Your task to perform on an android device: uninstall "PlayWell" Image 0: 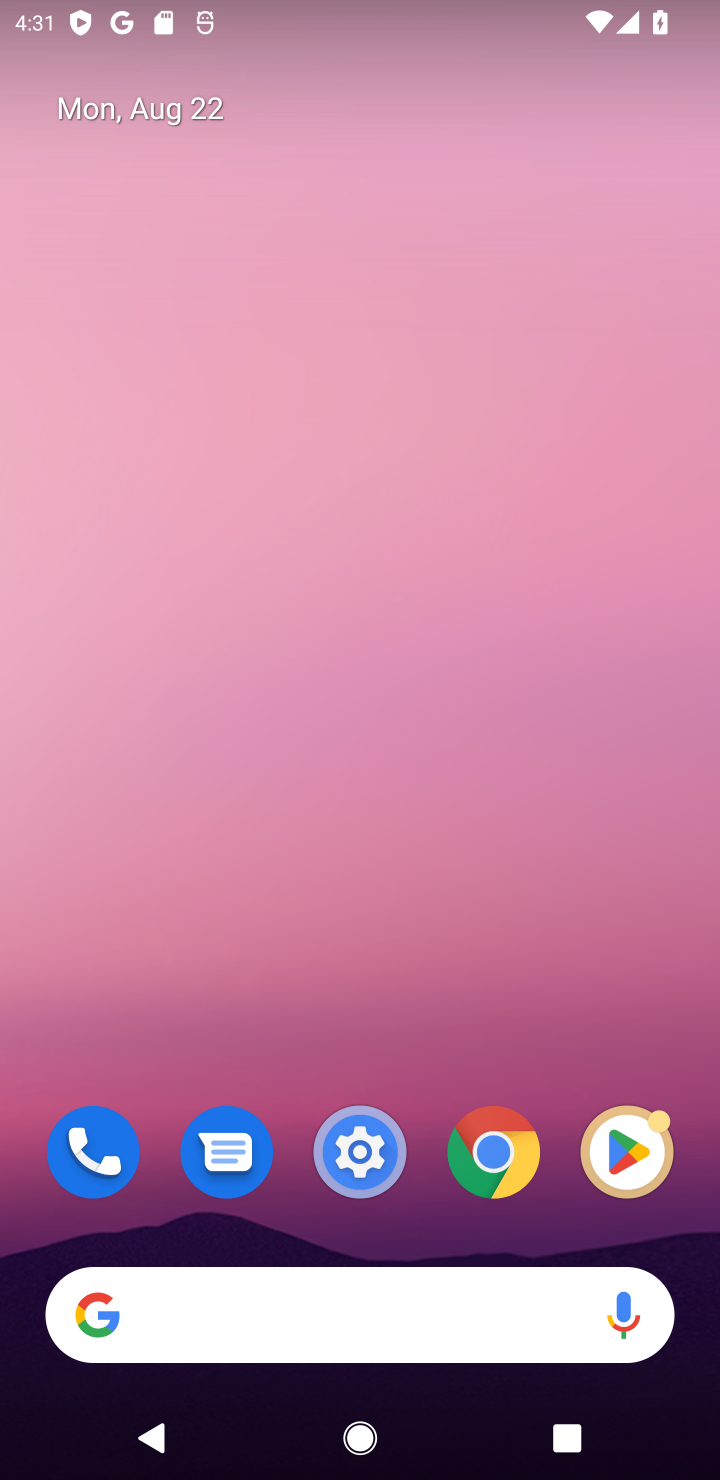
Step 0: click (610, 1177)
Your task to perform on an android device: uninstall "PlayWell" Image 1: 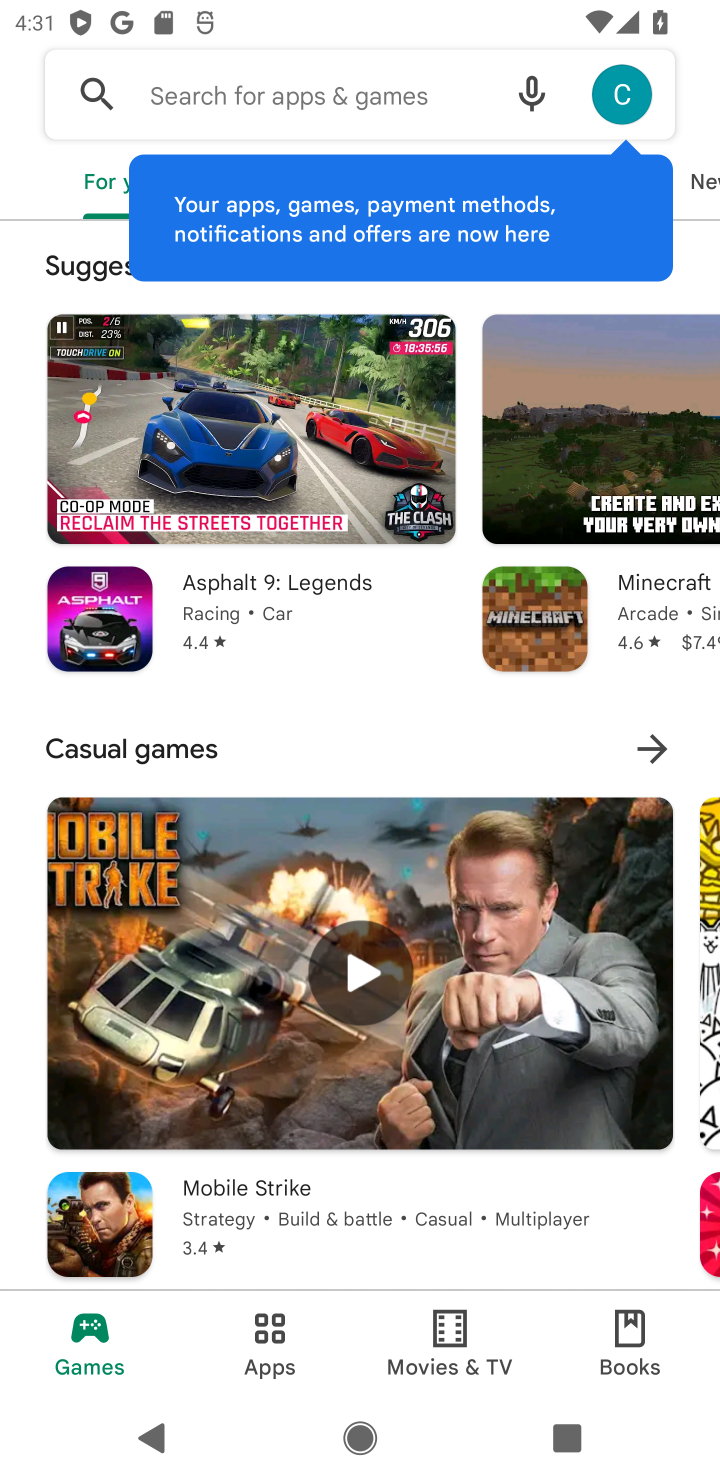
Step 1: click (242, 96)
Your task to perform on an android device: uninstall "PlayWell" Image 2: 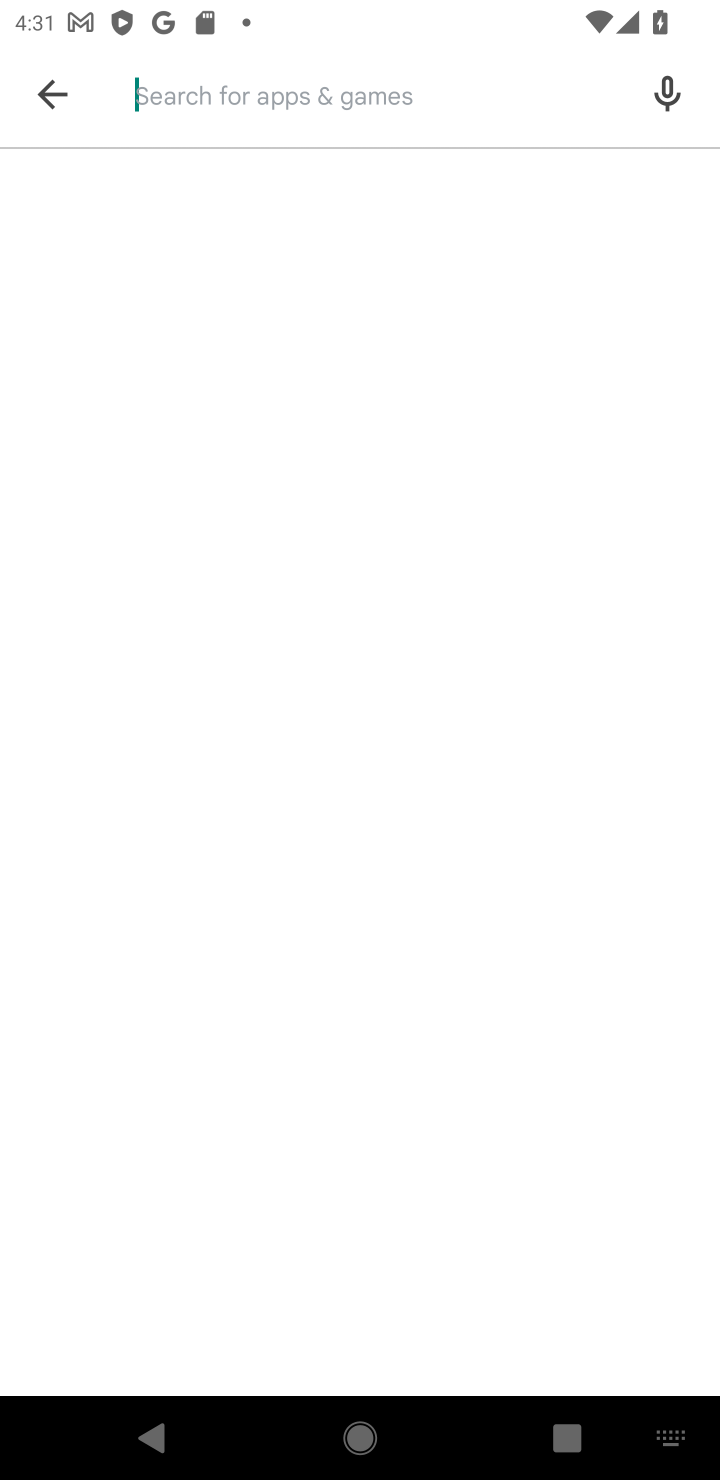
Step 2: type "PlayWell"
Your task to perform on an android device: uninstall "PlayWell" Image 3: 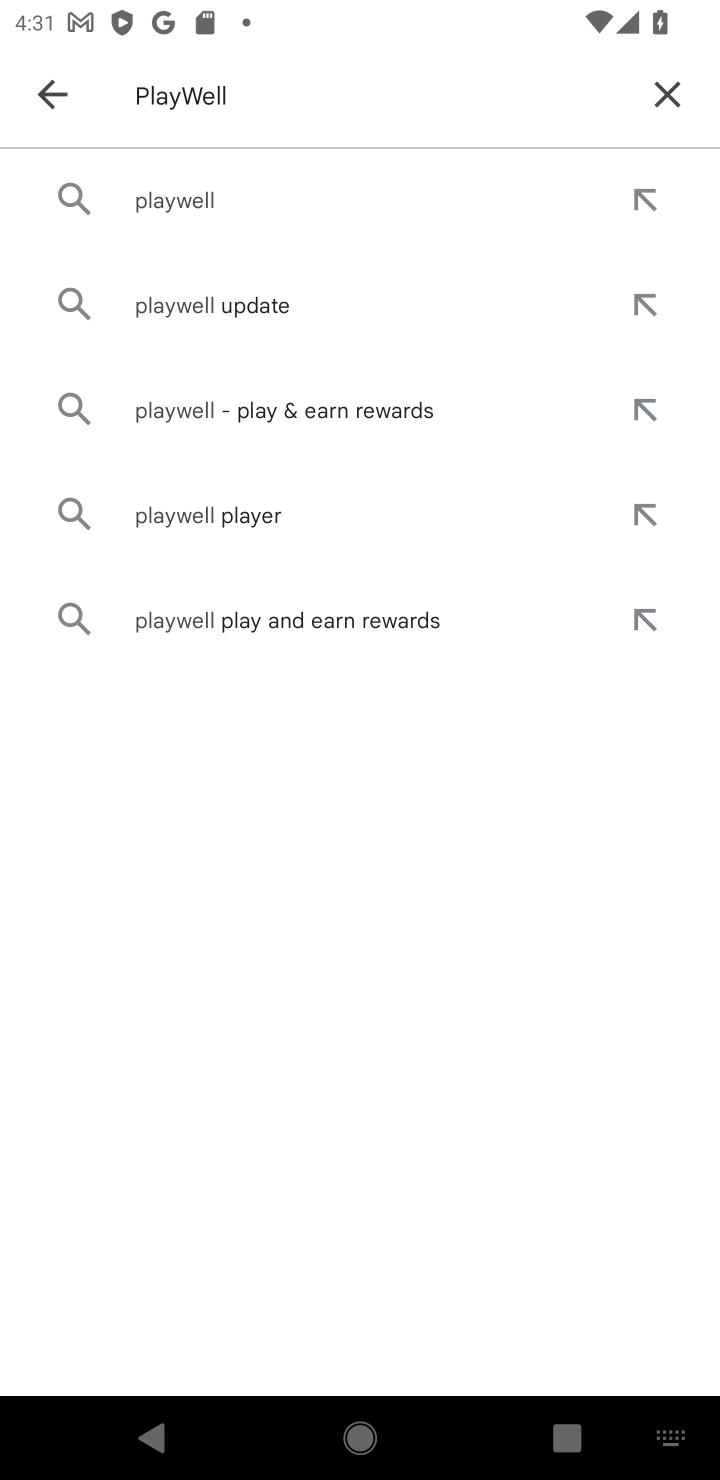
Step 3: click (144, 182)
Your task to perform on an android device: uninstall "PlayWell" Image 4: 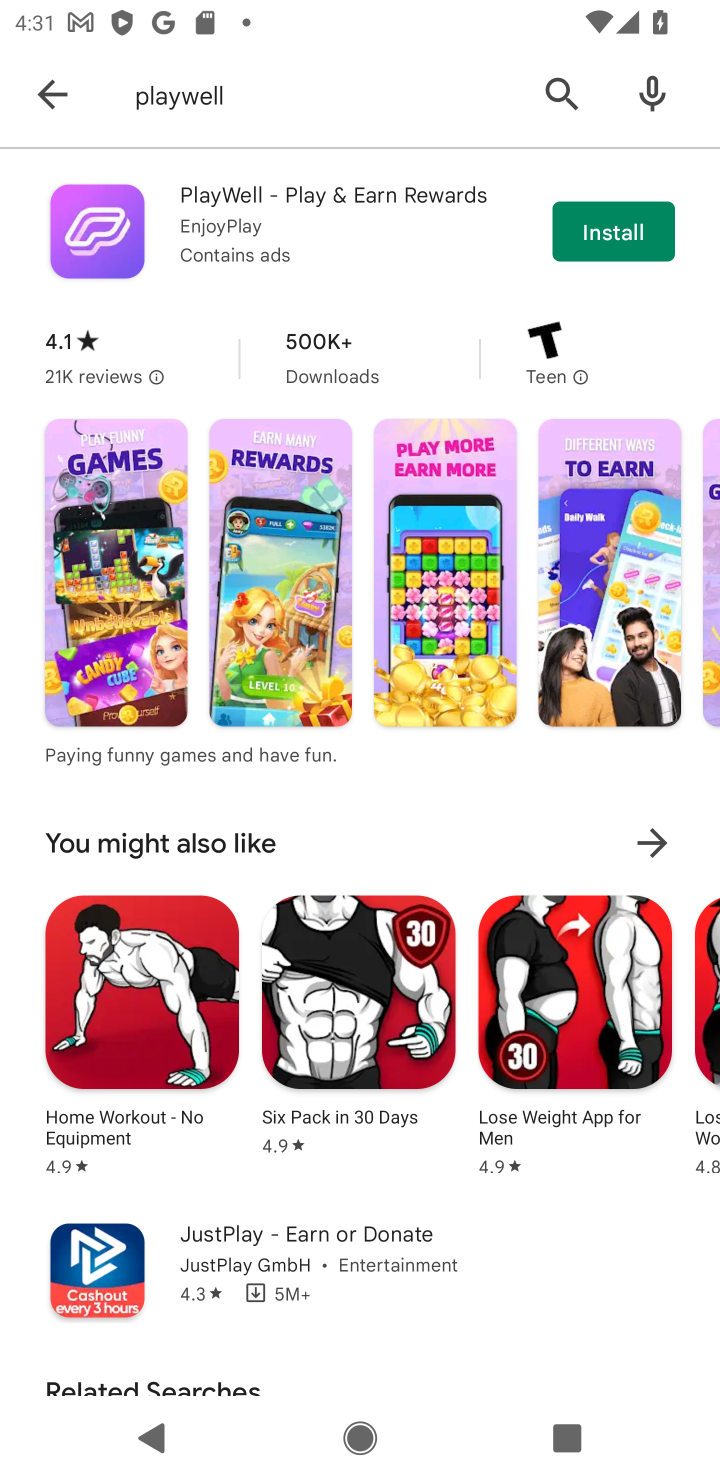
Step 4: task complete